Your task to perform on an android device: find snoozed emails in the gmail app Image 0: 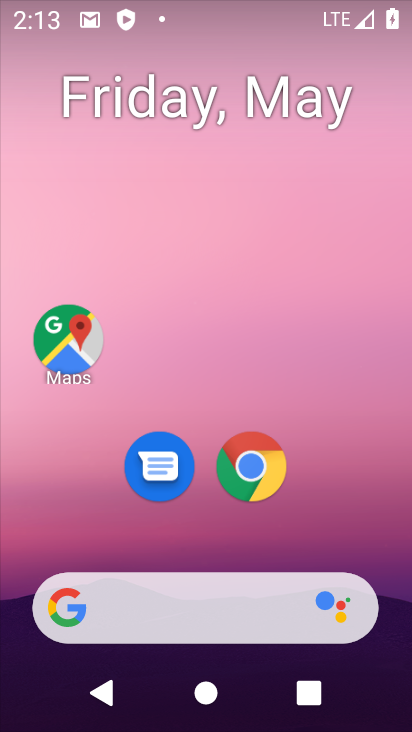
Step 0: drag from (369, 491) to (337, 128)
Your task to perform on an android device: find snoozed emails in the gmail app Image 1: 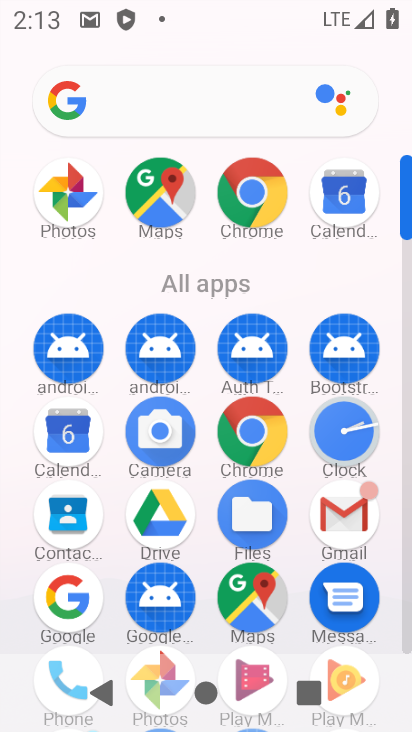
Step 1: click (332, 510)
Your task to perform on an android device: find snoozed emails in the gmail app Image 2: 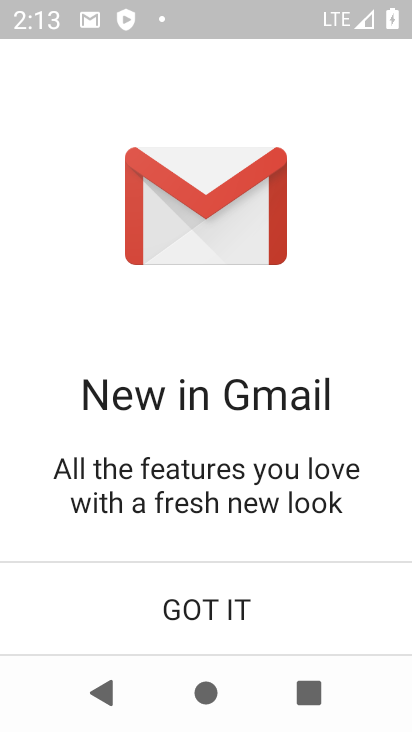
Step 2: click (268, 604)
Your task to perform on an android device: find snoozed emails in the gmail app Image 3: 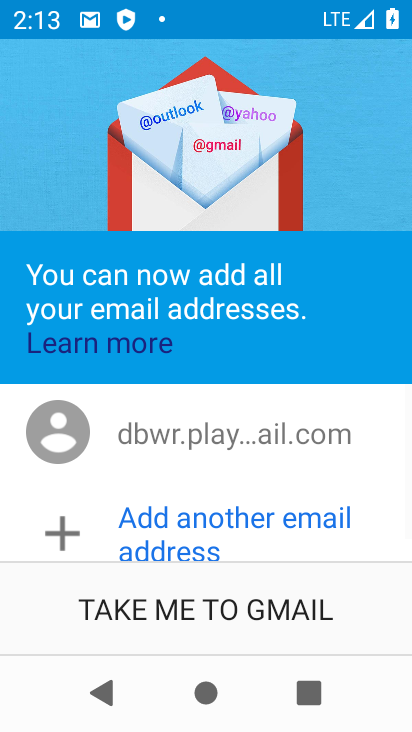
Step 3: click (266, 603)
Your task to perform on an android device: find snoozed emails in the gmail app Image 4: 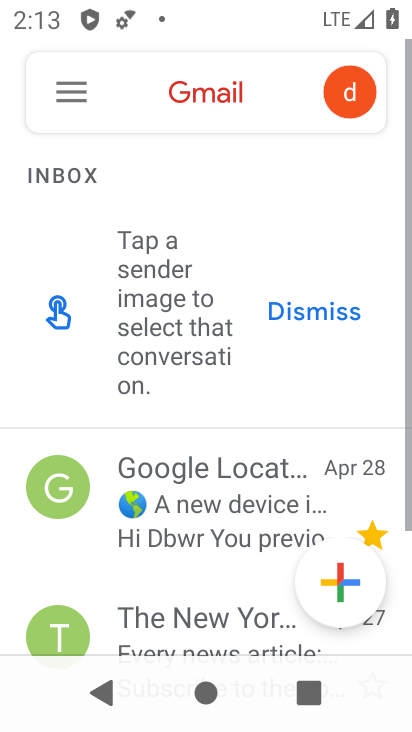
Step 4: click (77, 83)
Your task to perform on an android device: find snoozed emails in the gmail app Image 5: 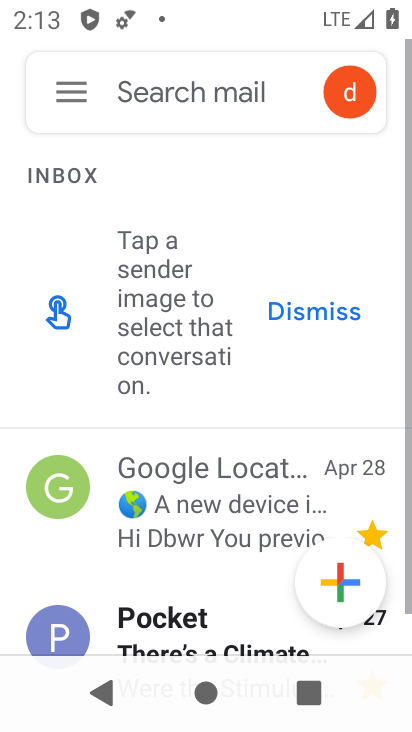
Step 5: click (73, 88)
Your task to perform on an android device: find snoozed emails in the gmail app Image 6: 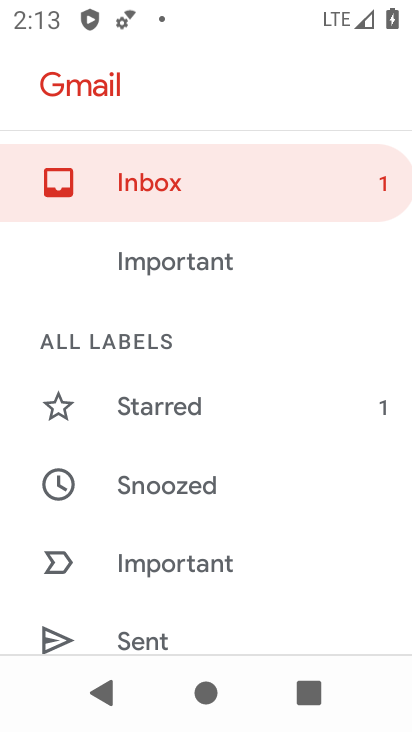
Step 6: click (171, 472)
Your task to perform on an android device: find snoozed emails in the gmail app Image 7: 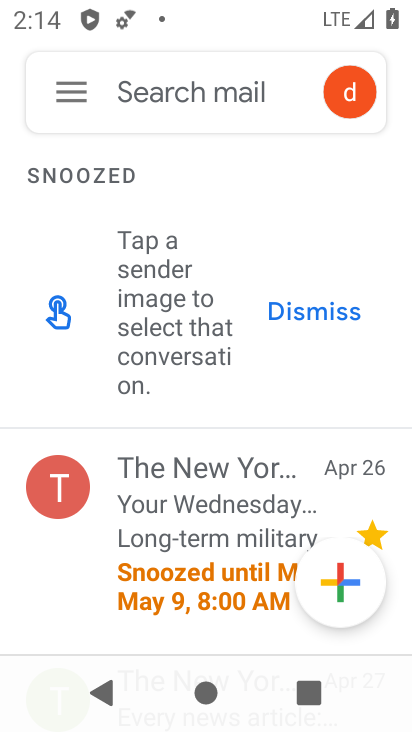
Step 7: task complete